Your task to perform on an android device: open the mobile data screen to see how much data has been used Image 0: 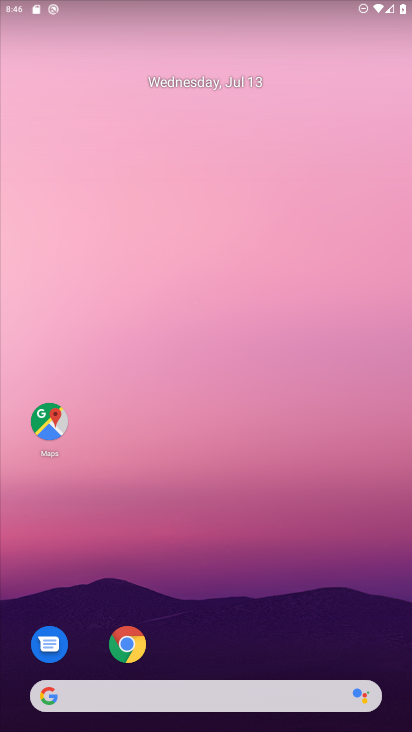
Step 0: press home button
Your task to perform on an android device: open the mobile data screen to see how much data has been used Image 1: 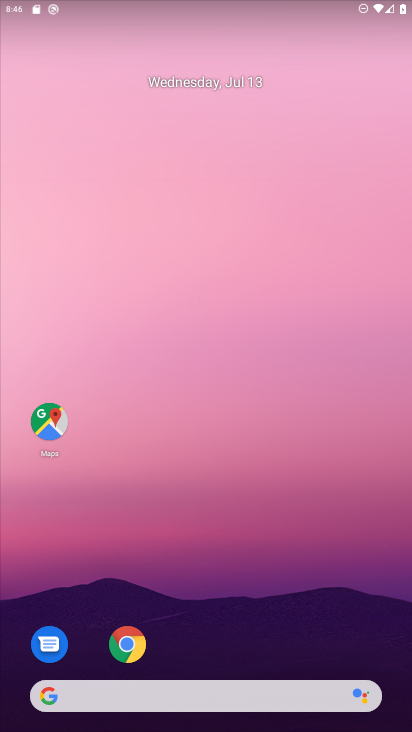
Step 1: drag from (358, 421) to (362, 218)
Your task to perform on an android device: open the mobile data screen to see how much data has been used Image 2: 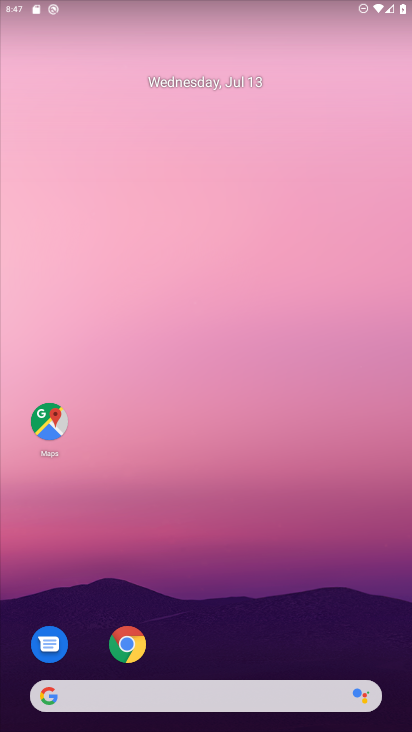
Step 2: drag from (264, 532) to (272, 22)
Your task to perform on an android device: open the mobile data screen to see how much data has been used Image 3: 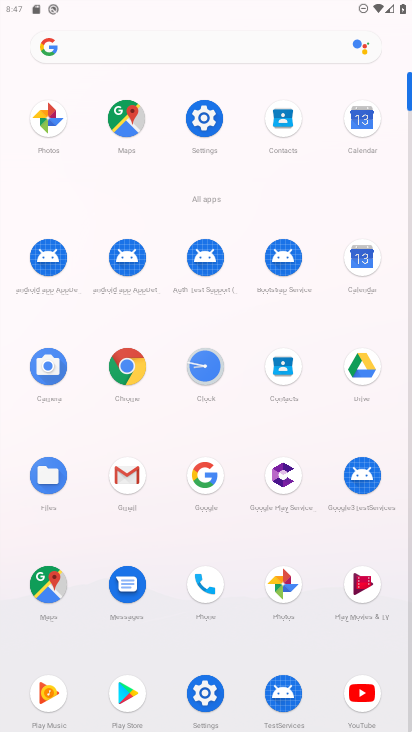
Step 3: click (199, 693)
Your task to perform on an android device: open the mobile data screen to see how much data has been used Image 4: 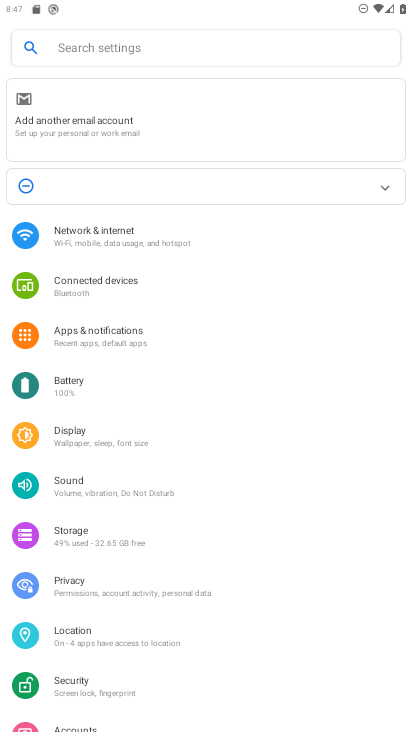
Step 4: click (119, 237)
Your task to perform on an android device: open the mobile data screen to see how much data has been used Image 5: 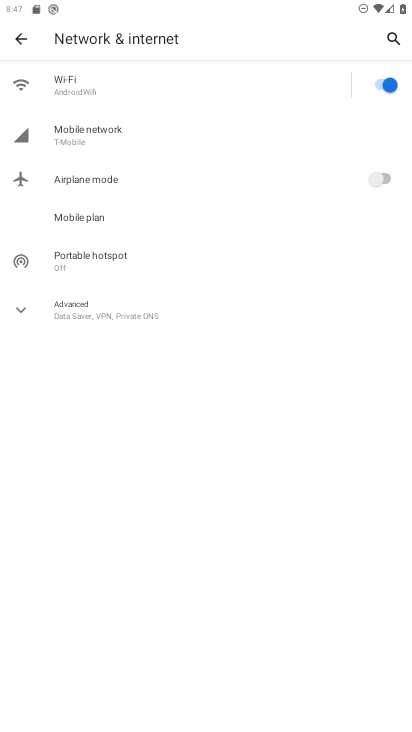
Step 5: click (108, 141)
Your task to perform on an android device: open the mobile data screen to see how much data has been used Image 6: 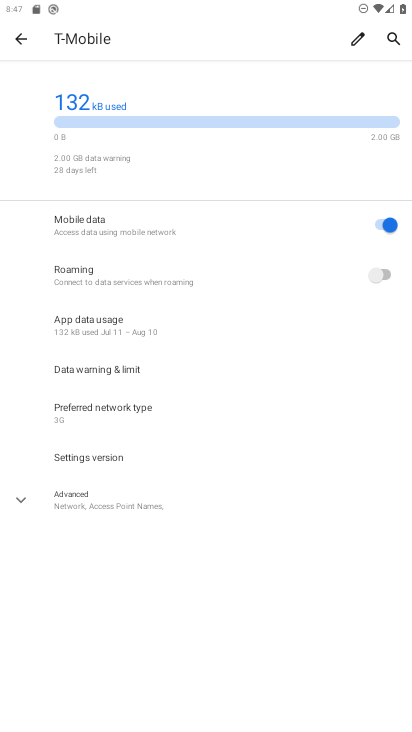
Step 6: task complete